Your task to perform on an android device: Do I have any events today? Image 0: 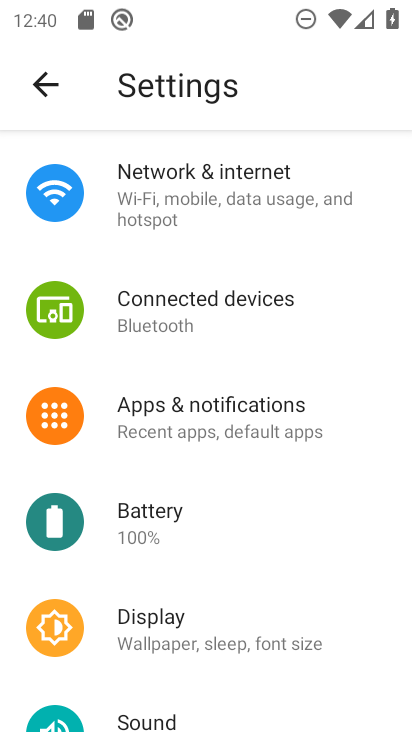
Step 0: press home button
Your task to perform on an android device: Do I have any events today? Image 1: 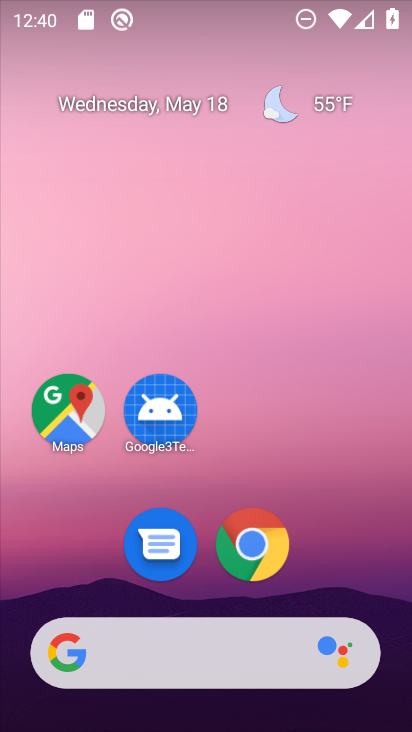
Step 1: drag from (187, 583) to (222, 17)
Your task to perform on an android device: Do I have any events today? Image 2: 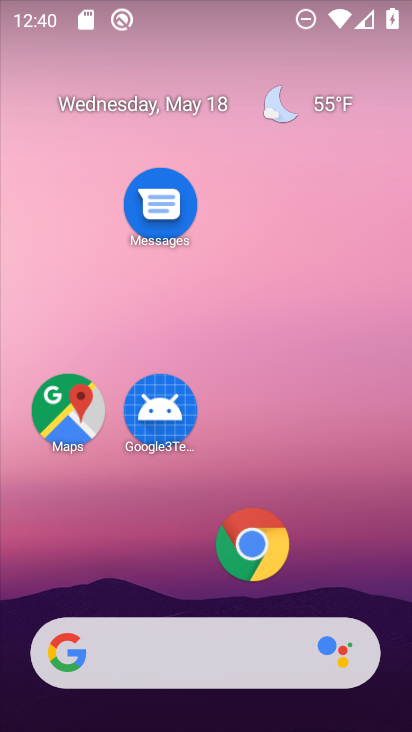
Step 2: drag from (170, 558) to (248, 115)
Your task to perform on an android device: Do I have any events today? Image 3: 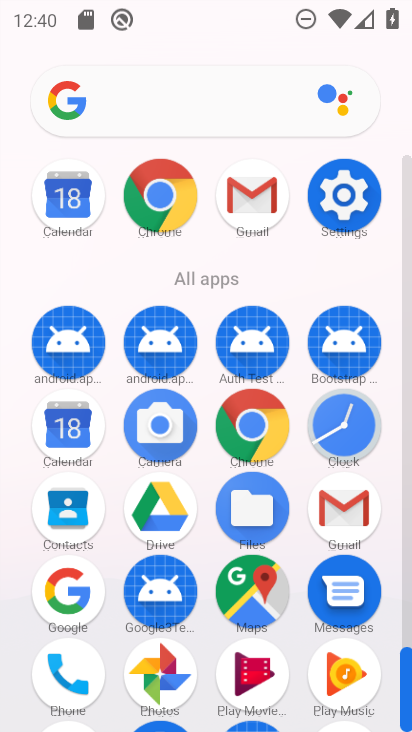
Step 3: click (78, 422)
Your task to perform on an android device: Do I have any events today? Image 4: 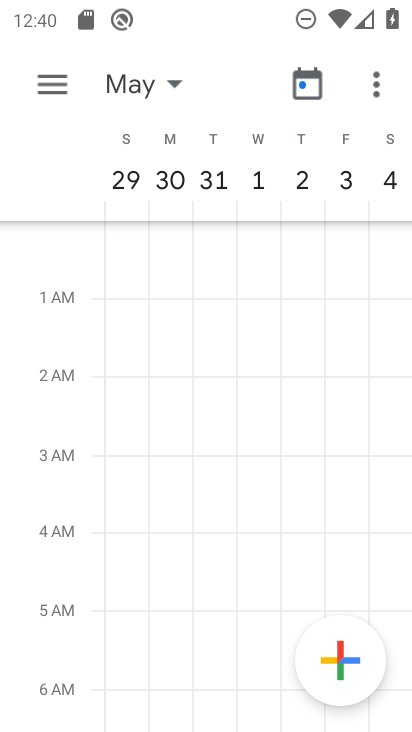
Step 4: drag from (124, 167) to (406, 204)
Your task to perform on an android device: Do I have any events today? Image 5: 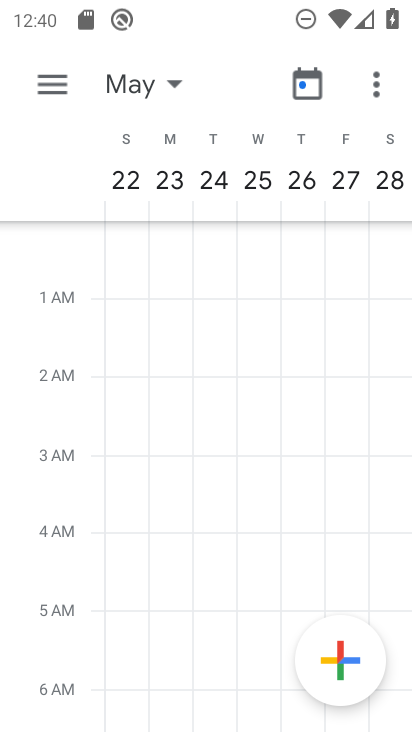
Step 5: drag from (179, 194) to (404, 199)
Your task to perform on an android device: Do I have any events today? Image 6: 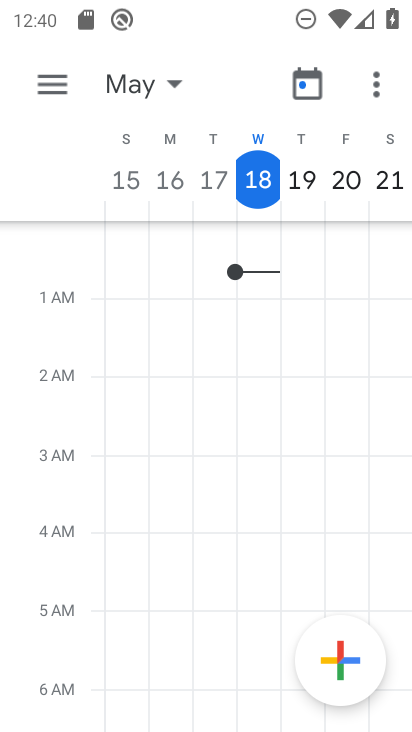
Step 6: drag from (151, 175) to (188, 171)
Your task to perform on an android device: Do I have any events today? Image 7: 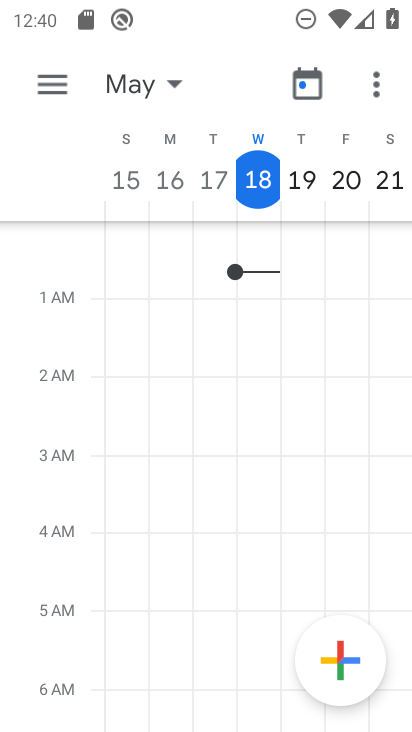
Step 7: click (48, 83)
Your task to perform on an android device: Do I have any events today? Image 8: 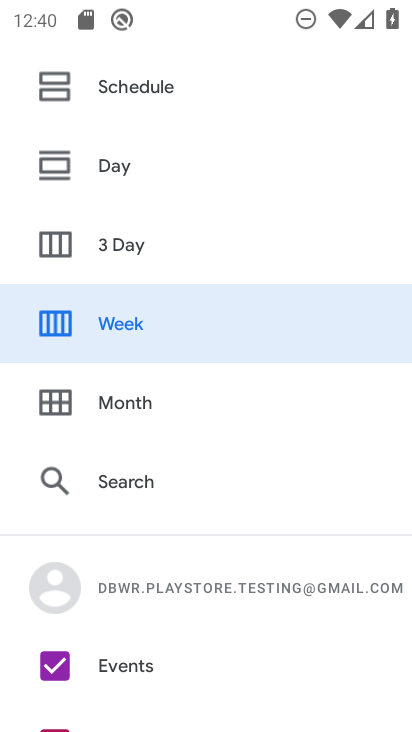
Step 8: click (129, 175)
Your task to perform on an android device: Do I have any events today? Image 9: 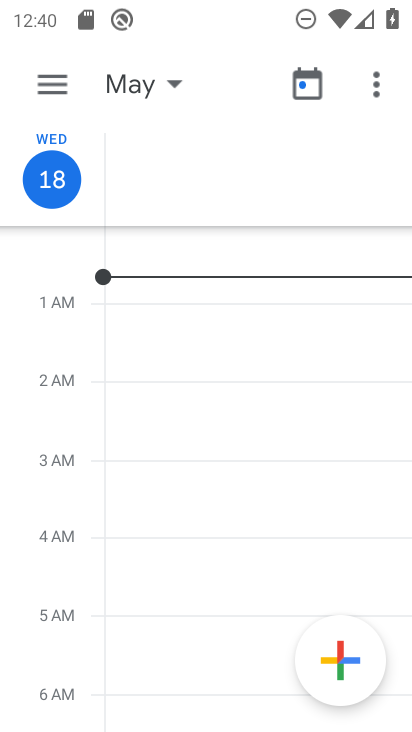
Step 9: task complete